Your task to perform on an android device: Go to display settings Image 0: 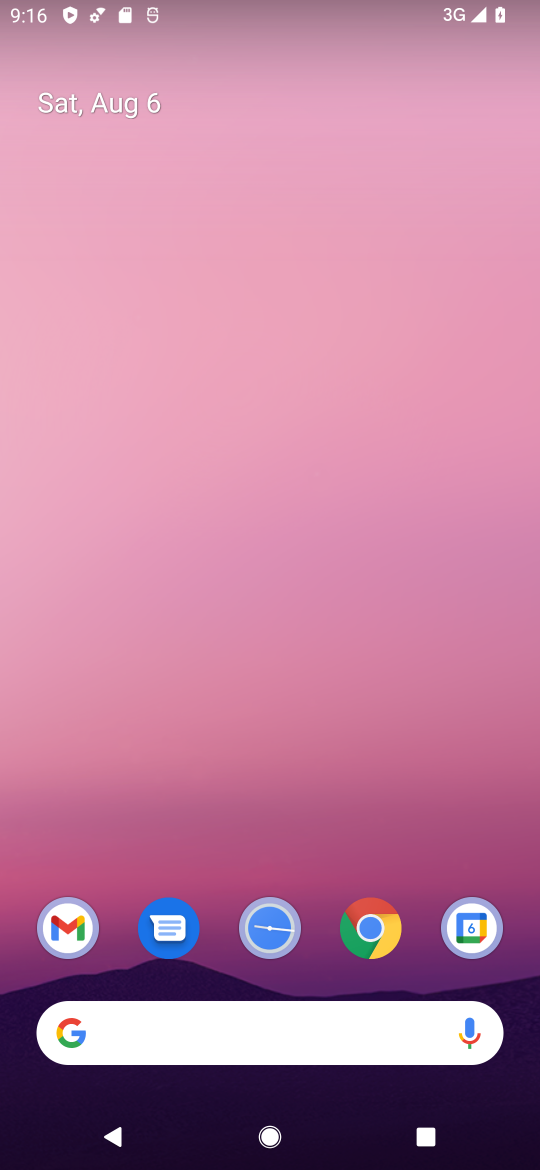
Step 0: drag from (261, 786) to (233, 259)
Your task to perform on an android device: Go to display settings Image 1: 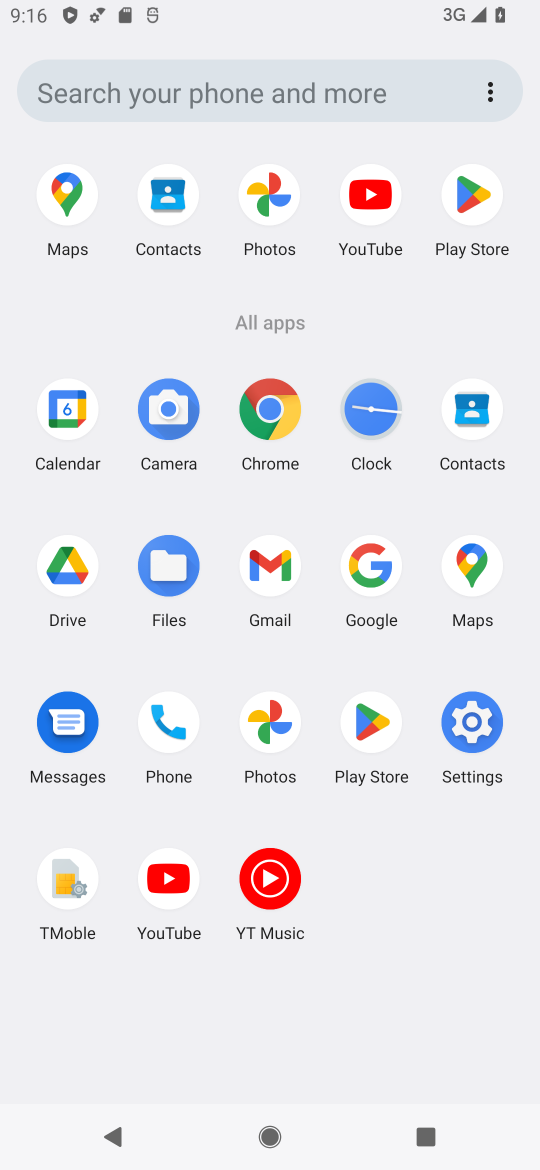
Step 1: click (467, 716)
Your task to perform on an android device: Go to display settings Image 2: 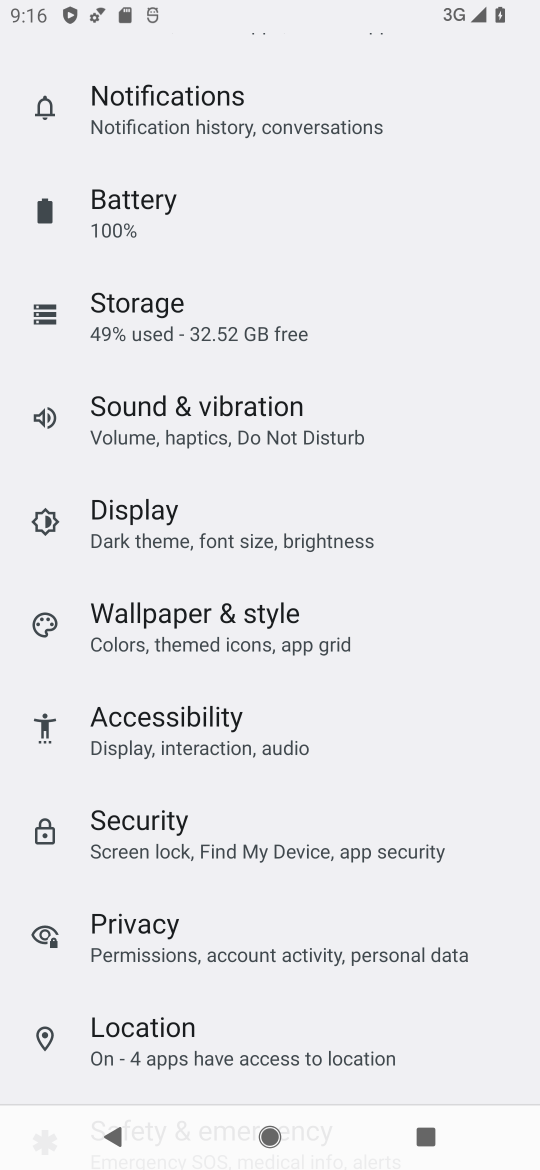
Step 2: click (151, 501)
Your task to perform on an android device: Go to display settings Image 3: 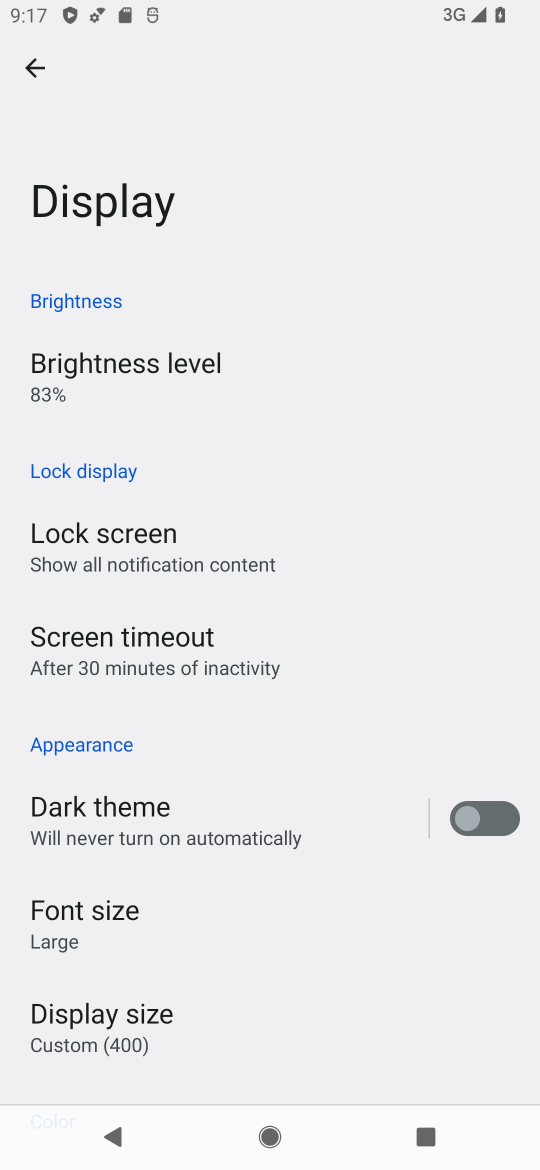
Step 3: task complete